Your task to perform on an android device: Go to battery settings Image 0: 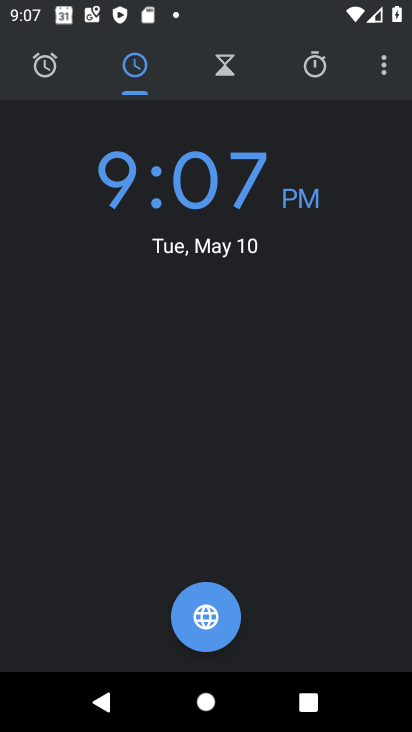
Step 0: press home button
Your task to perform on an android device: Go to battery settings Image 1: 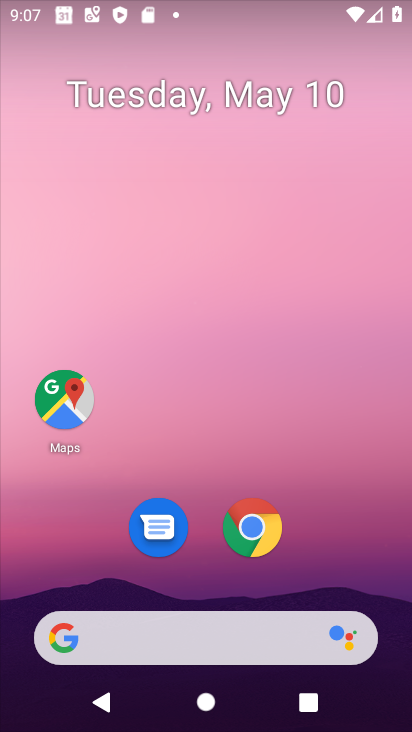
Step 1: drag from (293, 587) to (293, 270)
Your task to perform on an android device: Go to battery settings Image 2: 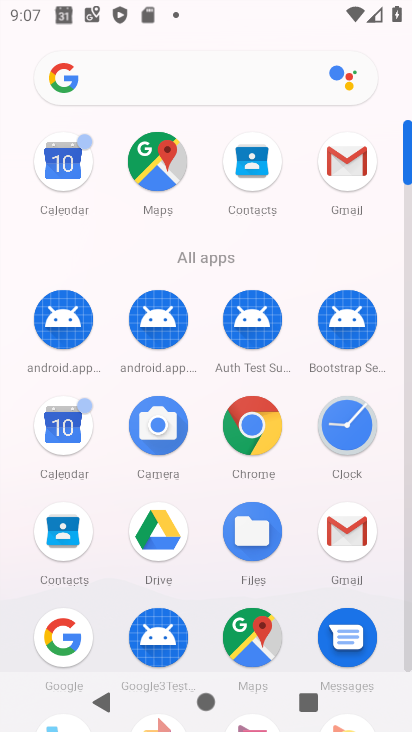
Step 2: drag from (300, 610) to (305, 300)
Your task to perform on an android device: Go to battery settings Image 3: 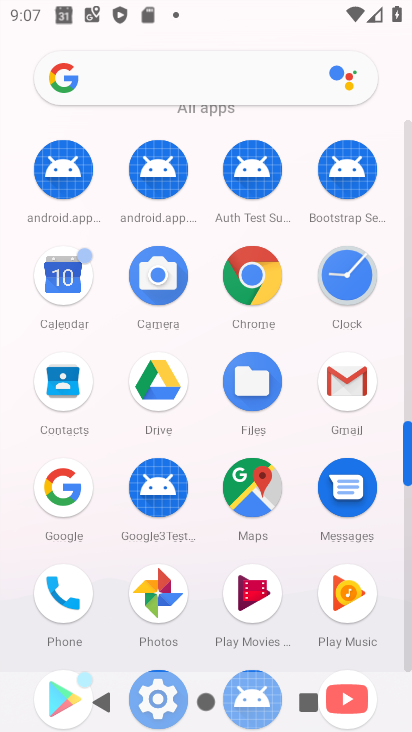
Step 3: drag from (241, 635) to (251, 396)
Your task to perform on an android device: Go to battery settings Image 4: 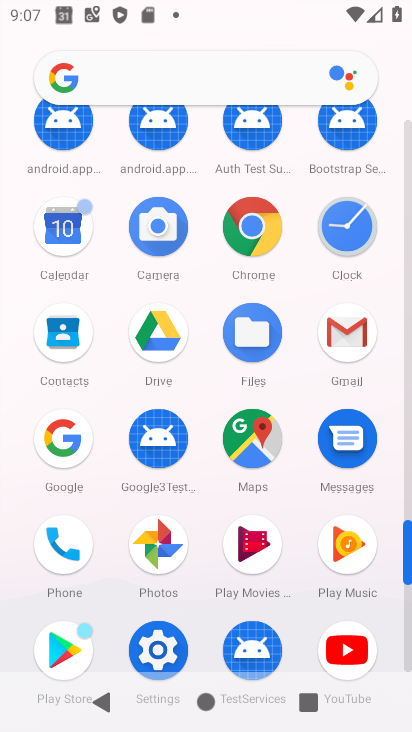
Step 4: click (160, 651)
Your task to perform on an android device: Go to battery settings Image 5: 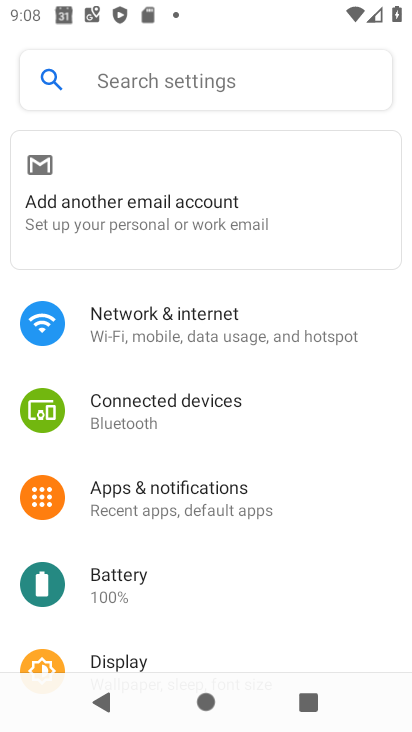
Step 5: click (120, 587)
Your task to perform on an android device: Go to battery settings Image 6: 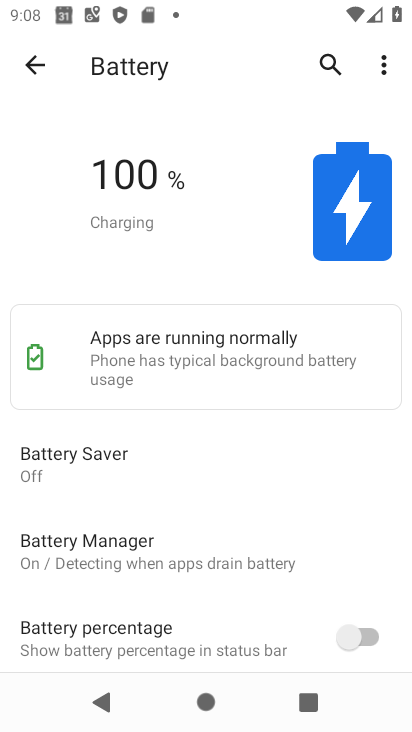
Step 6: task complete